Your task to perform on an android device: Go to wifi settings Image 0: 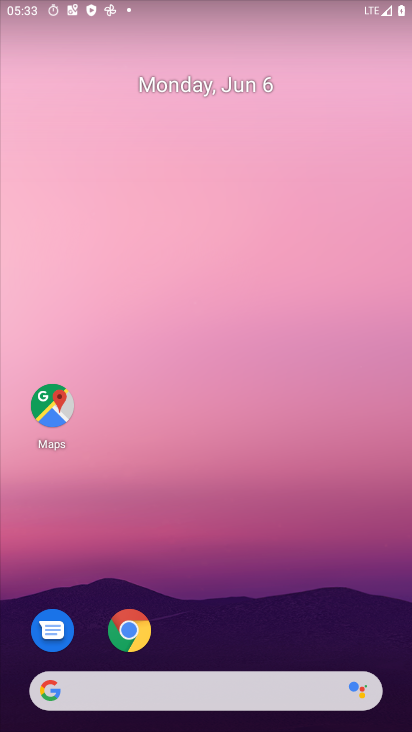
Step 0: drag from (242, 634) to (135, 98)
Your task to perform on an android device: Go to wifi settings Image 1: 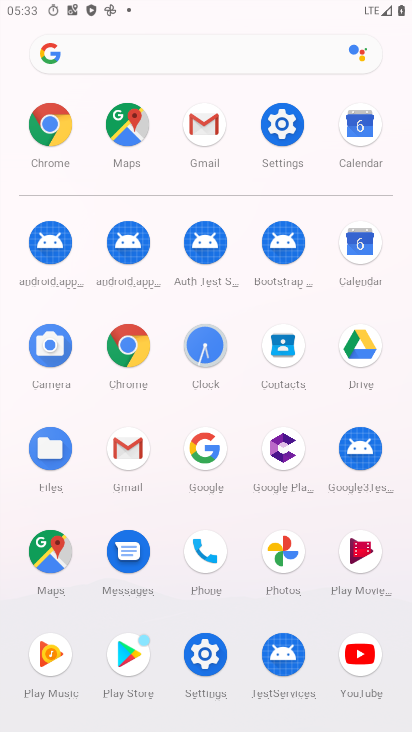
Step 1: drag from (132, 6) to (400, 451)
Your task to perform on an android device: Go to wifi settings Image 2: 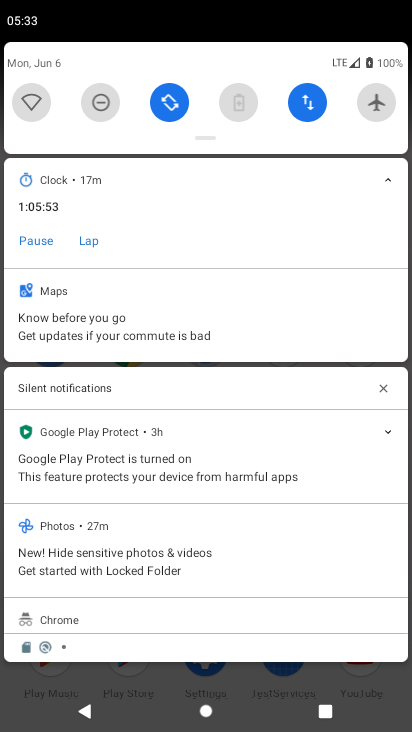
Step 2: click (32, 97)
Your task to perform on an android device: Go to wifi settings Image 3: 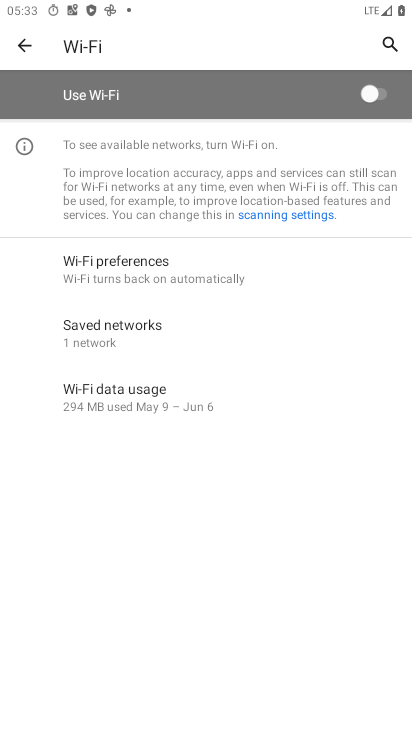
Step 3: task complete